Your task to perform on an android device: Open Wikipedia Image 0: 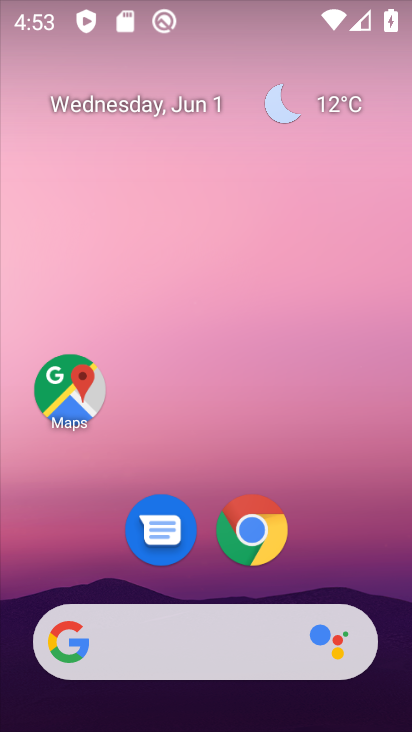
Step 0: click (236, 536)
Your task to perform on an android device: Open Wikipedia Image 1: 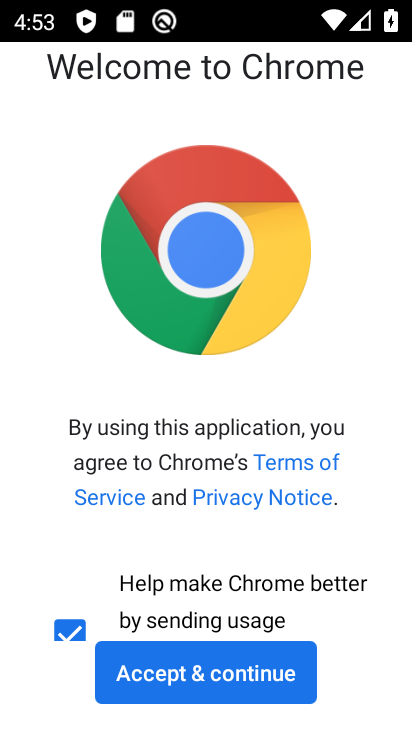
Step 1: click (222, 660)
Your task to perform on an android device: Open Wikipedia Image 2: 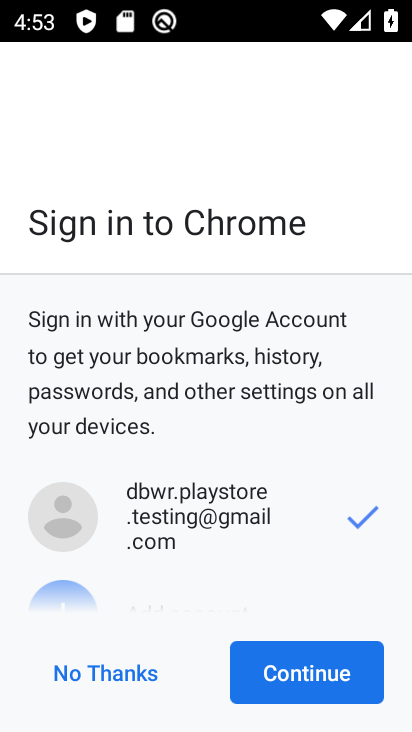
Step 2: click (339, 682)
Your task to perform on an android device: Open Wikipedia Image 3: 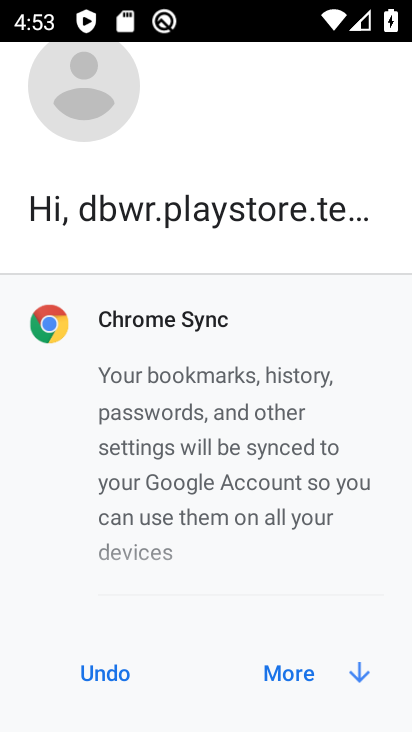
Step 3: click (308, 679)
Your task to perform on an android device: Open Wikipedia Image 4: 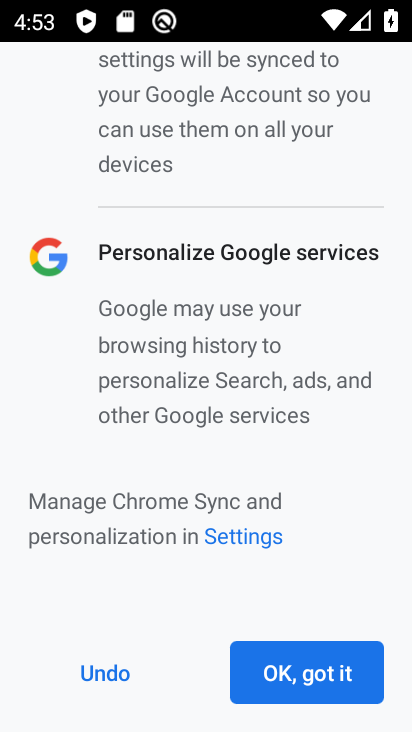
Step 4: click (308, 679)
Your task to perform on an android device: Open Wikipedia Image 5: 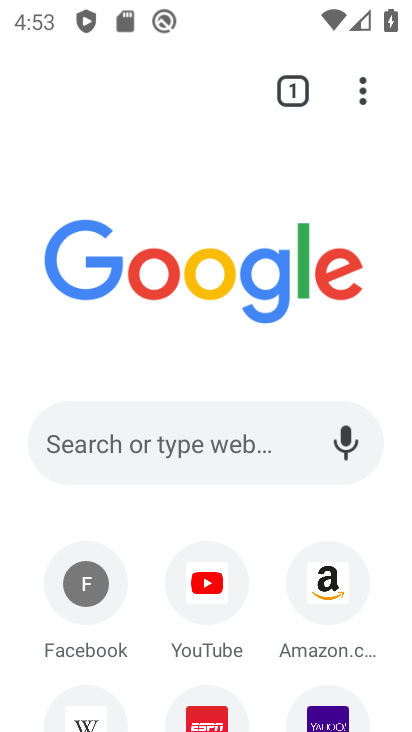
Step 5: click (96, 710)
Your task to perform on an android device: Open Wikipedia Image 6: 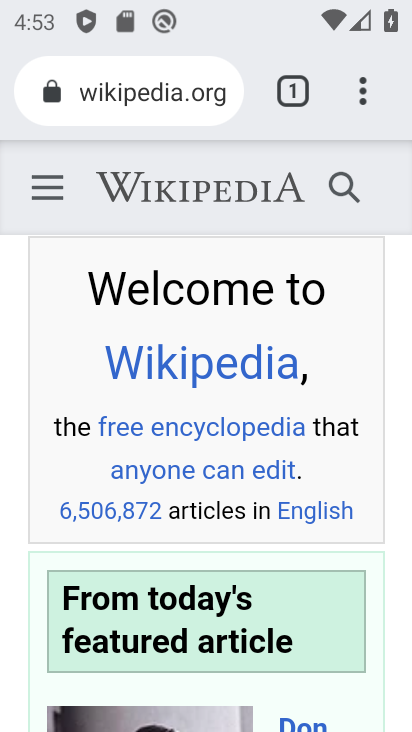
Step 6: task complete